Your task to perform on an android device: delete the emails in spam in the gmail app Image 0: 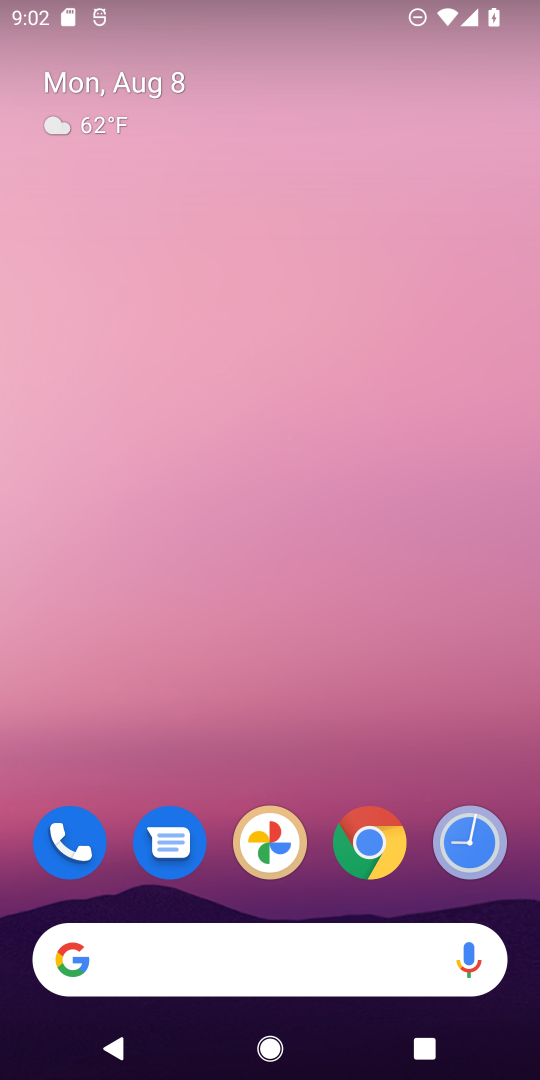
Step 0: drag from (289, 763) to (254, 3)
Your task to perform on an android device: delete the emails in spam in the gmail app Image 1: 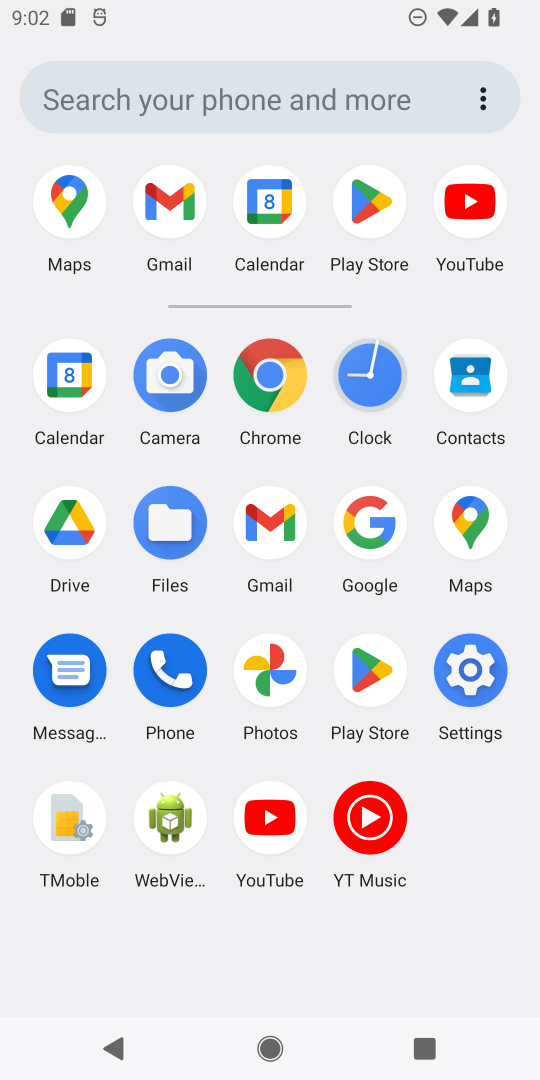
Step 1: click (176, 204)
Your task to perform on an android device: delete the emails in spam in the gmail app Image 2: 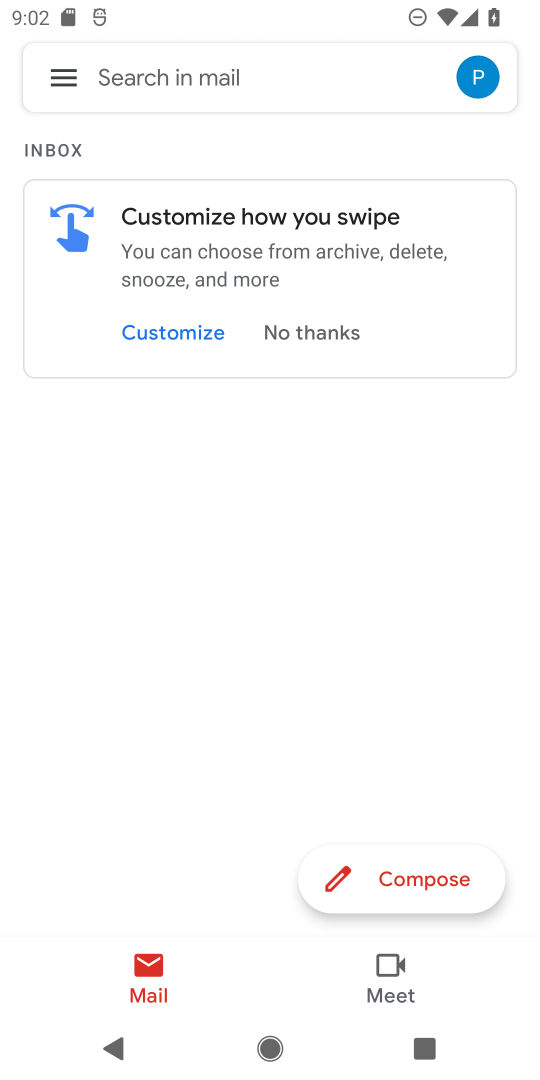
Step 2: click (61, 77)
Your task to perform on an android device: delete the emails in spam in the gmail app Image 3: 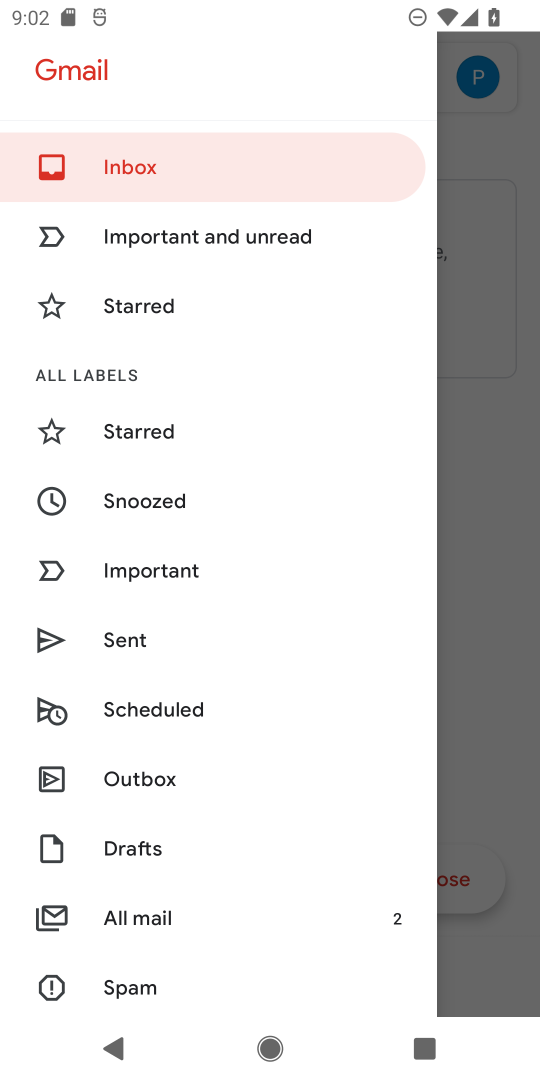
Step 3: click (148, 983)
Your task to perform on an android device: delete the emails in spam in the gmail app Image 4: 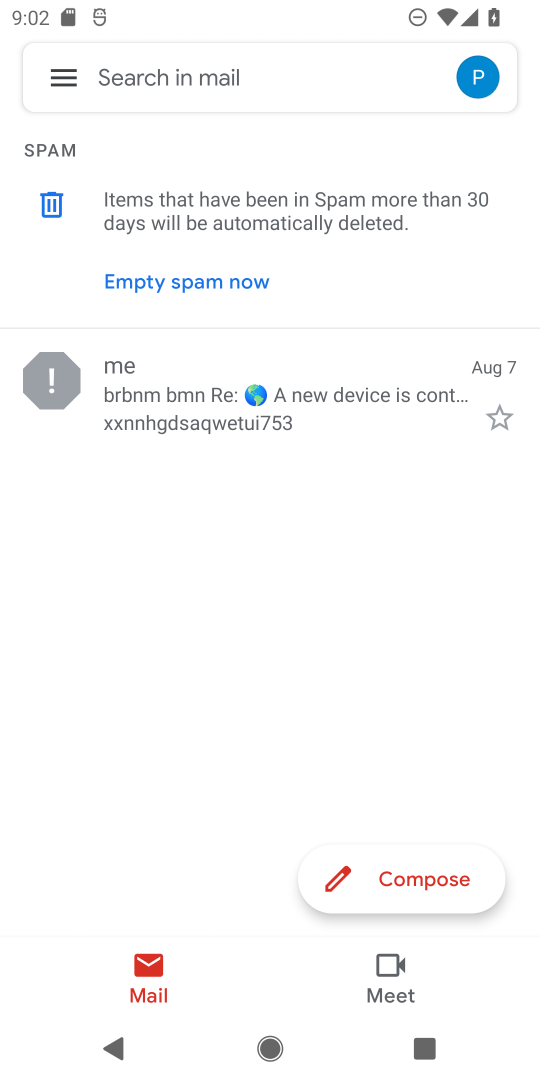
Step 4: click (124, 275)
Your task to perform on an android device: delete the emails in spam in the gmail app Image 5: 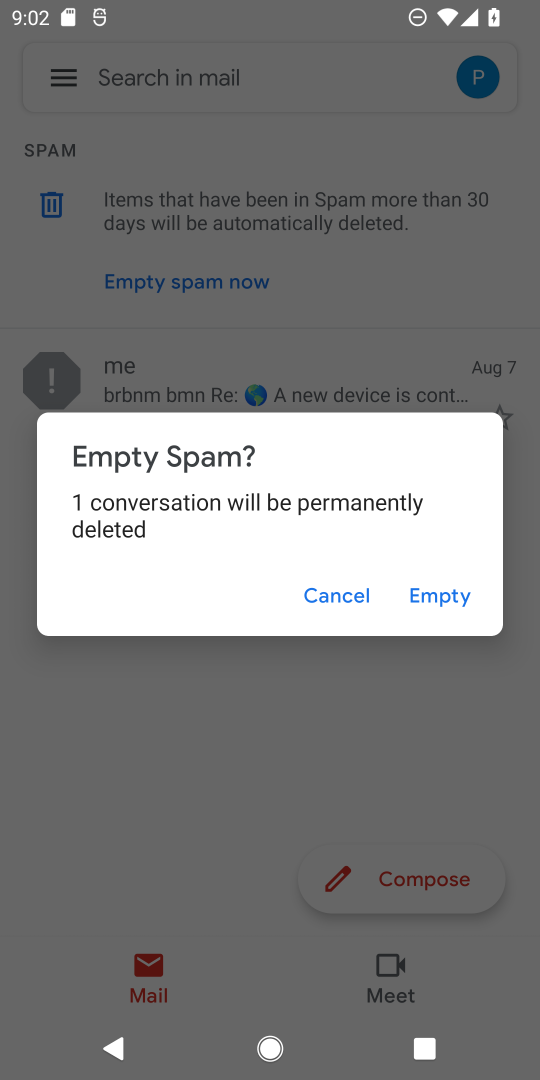
Step 5: click (428, 595)
Your task to perform on an android device: delete the emails in spam in the gmail app Image 6: 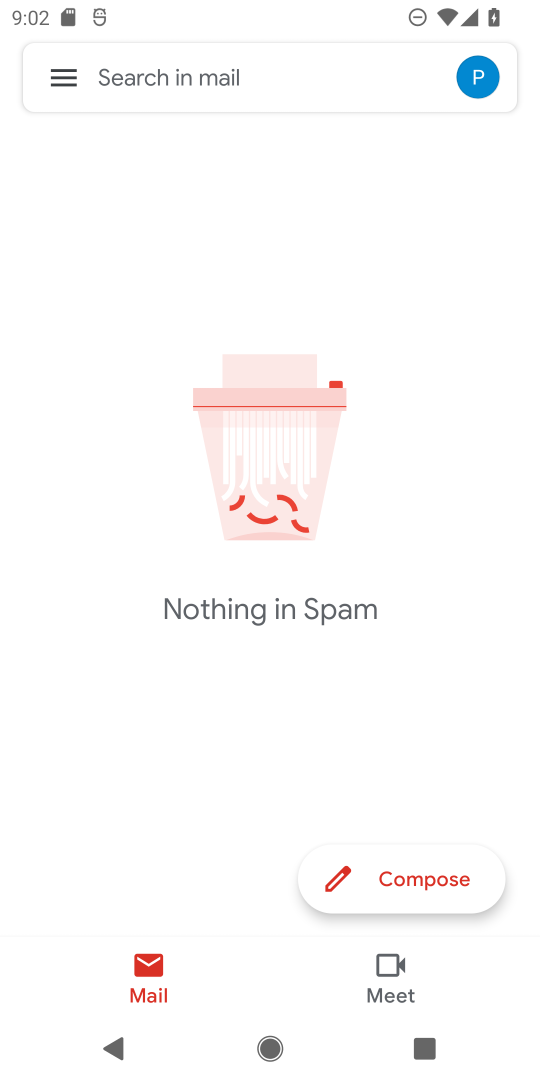
Step 6: task complete